Your task to perform on an android device: Open Chrome and go to the settings page Image 0: 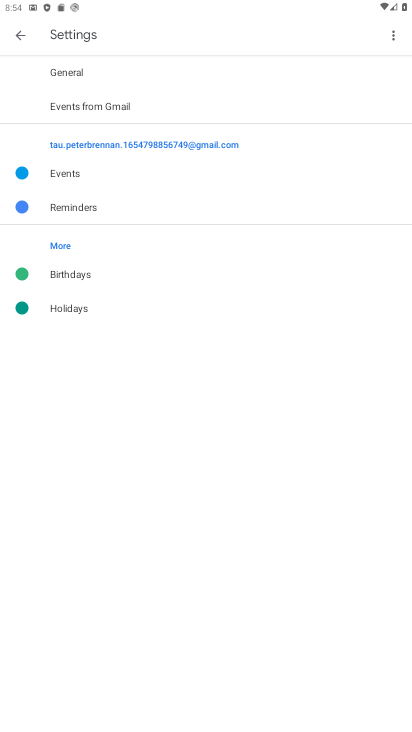
Step 0: press home button
Your task to perform on an android device: Open Chrome and go to the settings page Image 1: 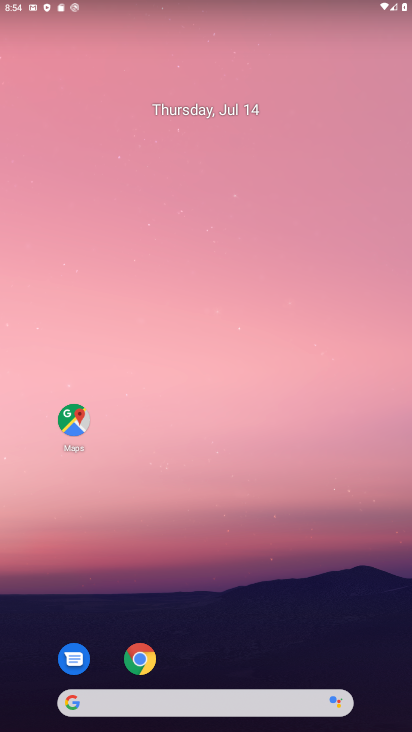
Step 1: click (299, 627)
Your task to perform on an android device: Open Chrome and go to the settings page Image 2: 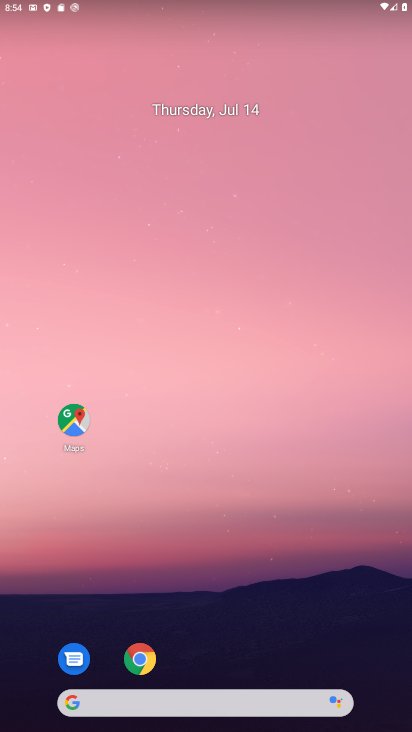
Step 2: click (140, 670)
Your task to perform on an android device: Open Chrome and go to the settings page Image 3: 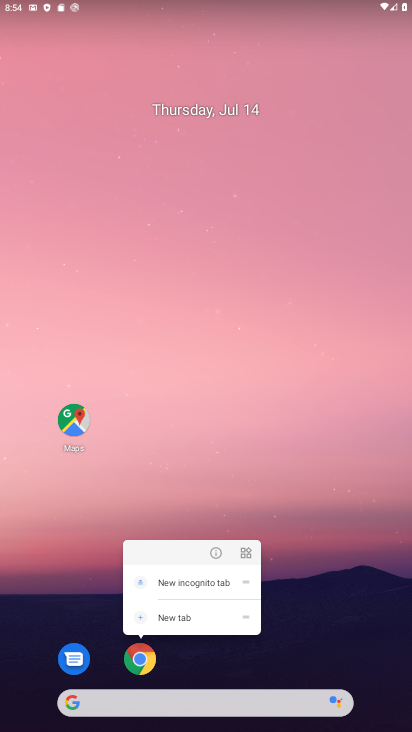
Step 3: click (139, 657)
Your task to perform on an android device: Open Chrome and go to the settings page Image 4: 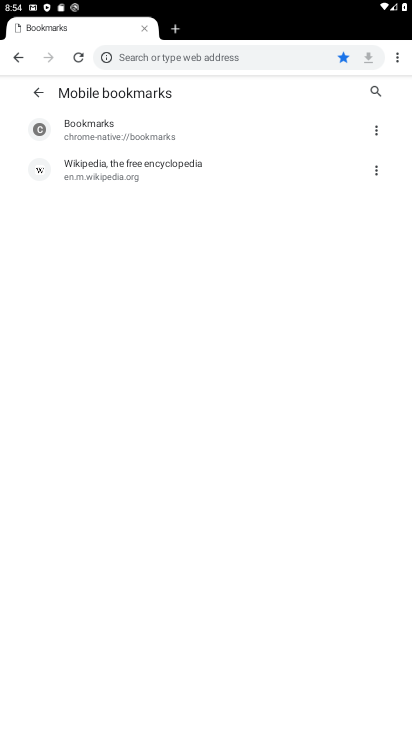
Step 4: task complete